Your task to perform on an android device: Go to Reddit.com Image 0: 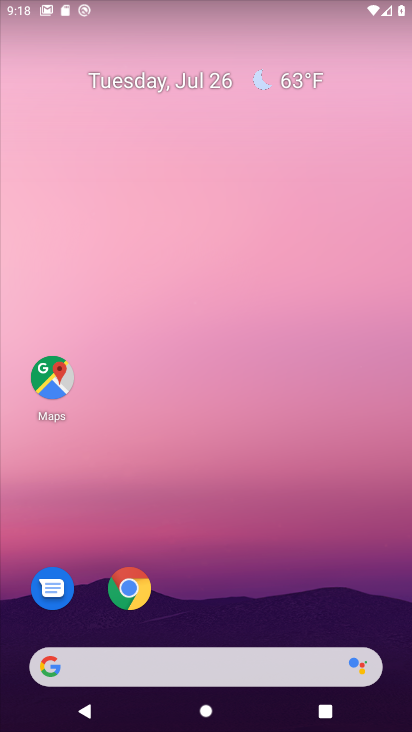
Step 0: click (120, 592)
Your task to perform on an android device: Go to Reddit.com Image 1: 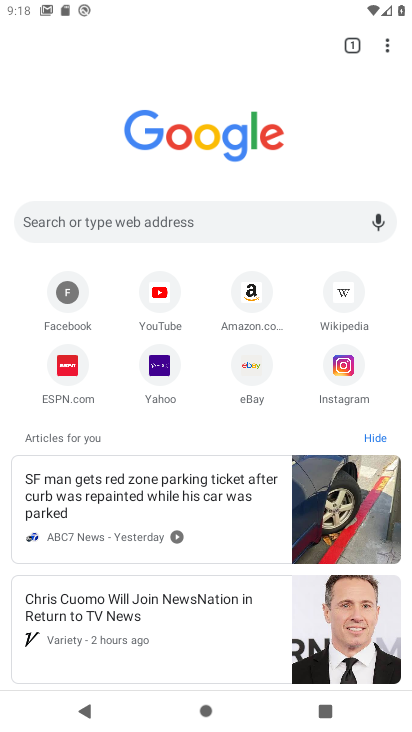
Step 1: click (249, 205)
Your task to perform on an android device: Go to Reddit.com Image 2: 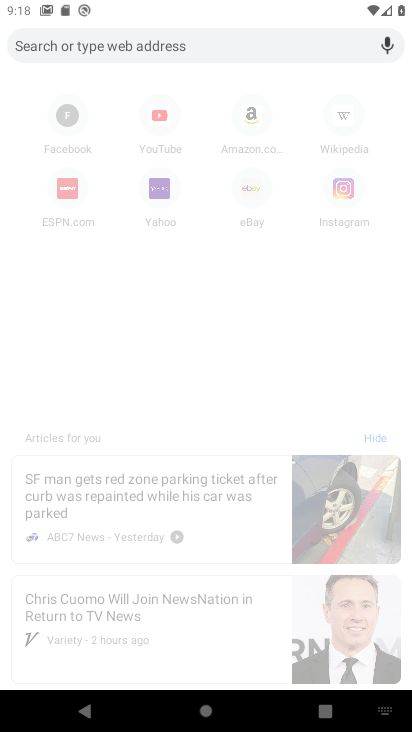
Step 2: type "Reddit.com"
Your task to perform on an android device: Go to Reddit.com Image 3: 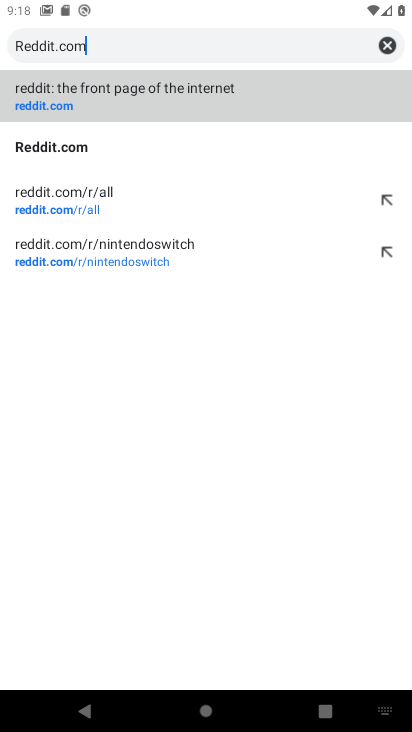
Step 3: click (42, 139)
Your task to perform on an android device: Go to Reddit.com Image 4: 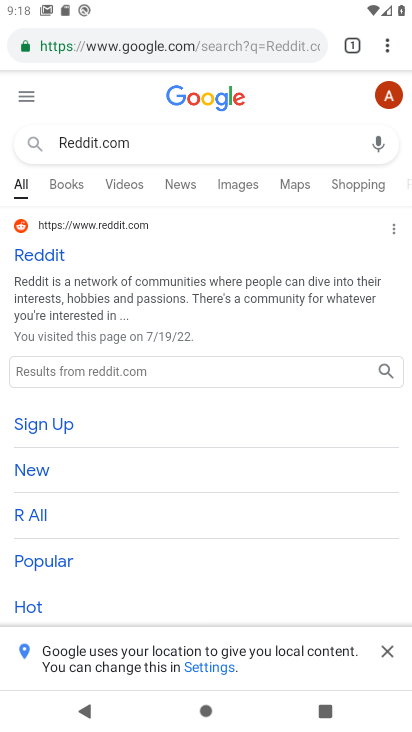
Step 4: task complete